Your task to perform on an android device: Go to wifi settings Image 0: 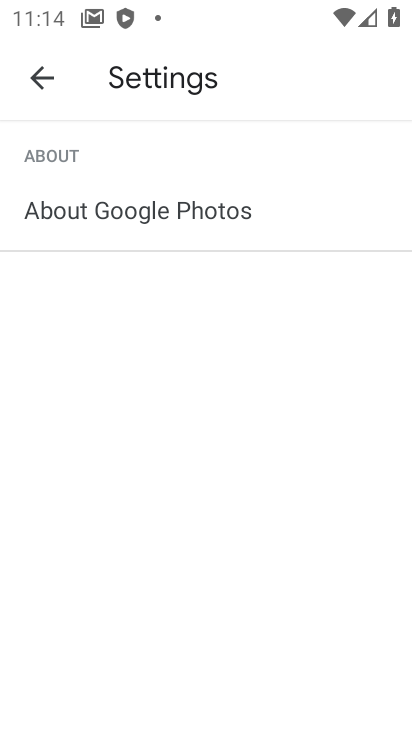
Step 0: press home button
Your task to perform on an android device: Go to wifi settings Image 1: 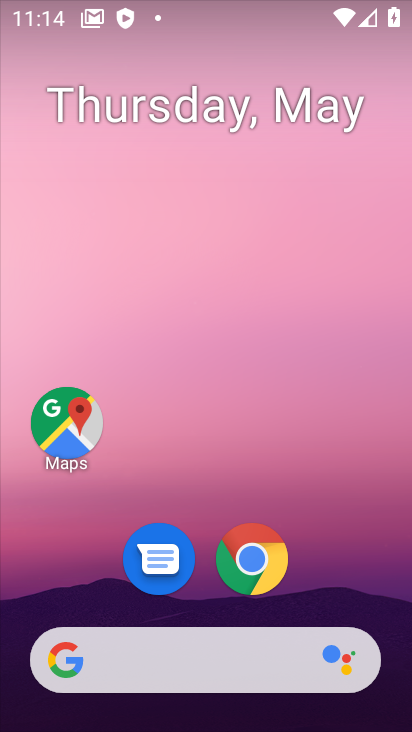
Step 1: drag from (188, 679) to (188, 199)
Your task to perform on an android device: Go to wifi settings Image 2: 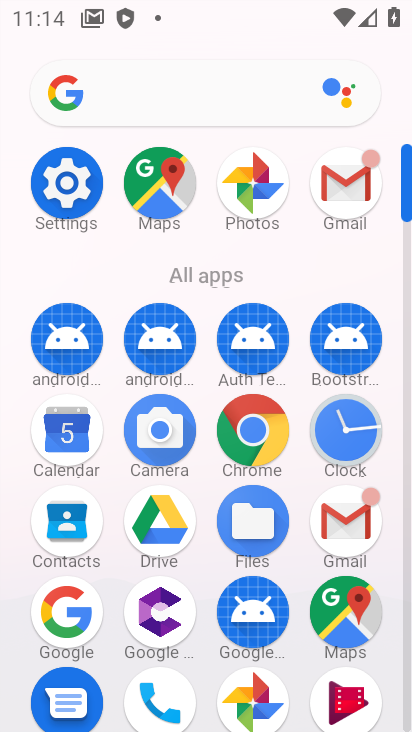
Step 2: click (76, 186)
Your task to perform on an android device: Go to wifi settings Image 3: 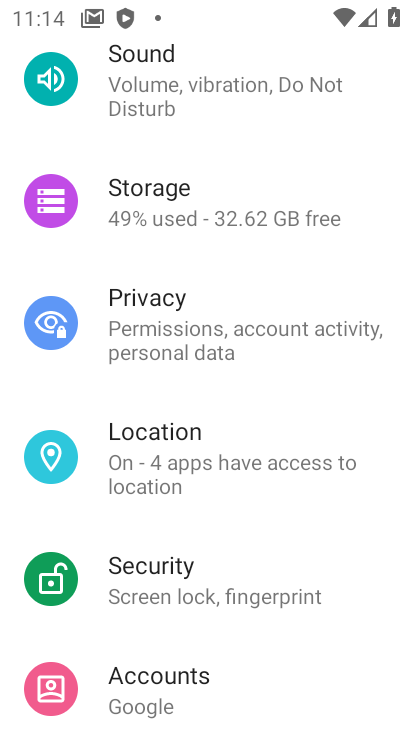
Step 3: drag from (237, 136) to (236, 464)
Your task to perform on an android device: Go to wifi settings Image 4: 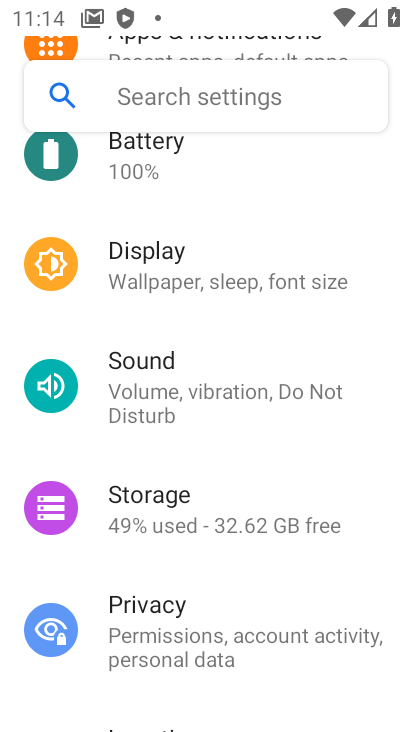
Step 4: drag from (205, 171) to (229, 540)
Your task to perform on an android device: Go to wifi settings Image 5: 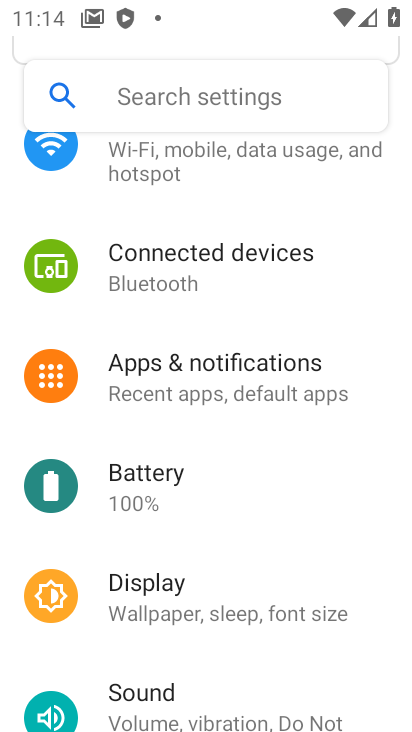
Step 5: drag from (221, 193) to (234, 461)
Your task to perform on an android device: Go to wifi settings Image 6: 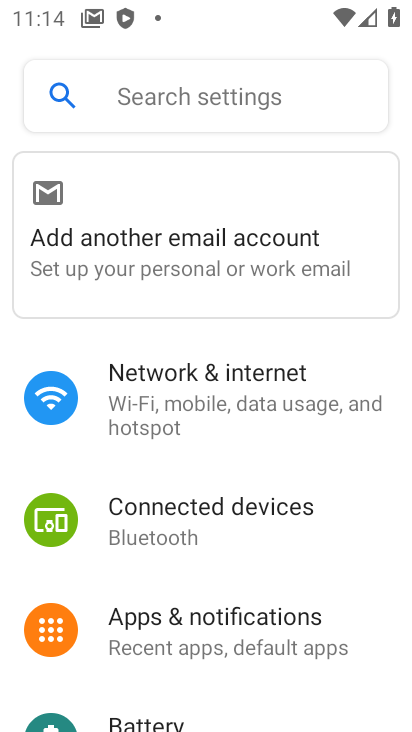
Step 6: click (170, 383)
Your task to perform on an android device: Go to wifi settings Image 7: 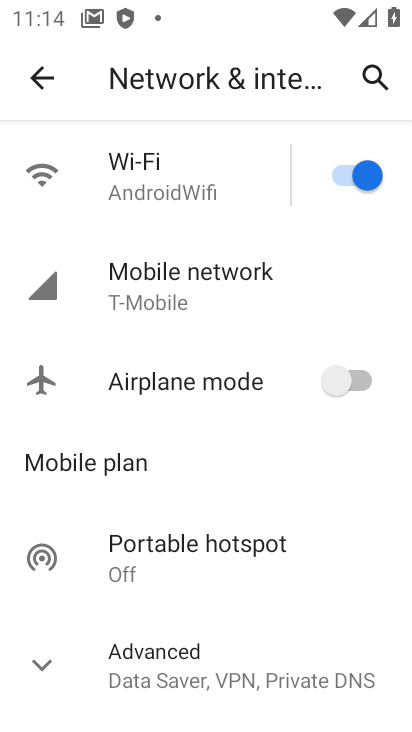
Step 7: click (145, 179)
Your task to perform on an android device: Go to wifi settings Image 8: 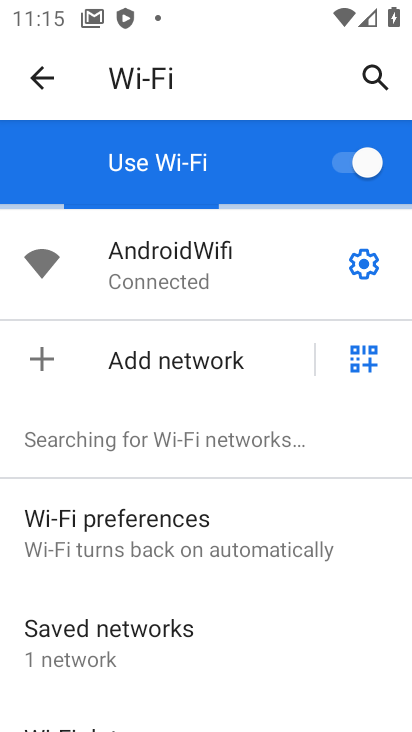
Step 8: task complete